Your task to perform on an android device: Show me recent news Image 0: 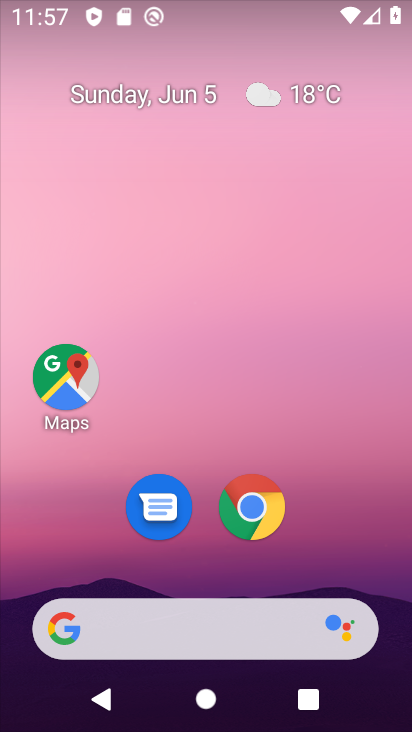
Step 0: drag from (216, 562) to (218, 6)
Your task to perform on an android device: Show me recent news Image 1: 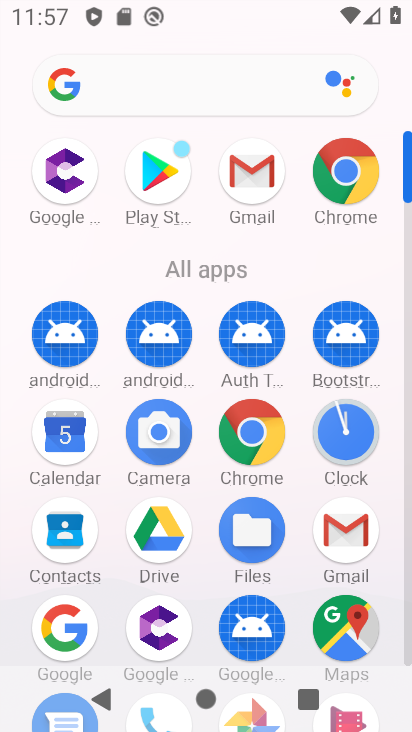
Step 1: click (188, 123)
Your task to perform on an android device: Show me recent news Image 2: 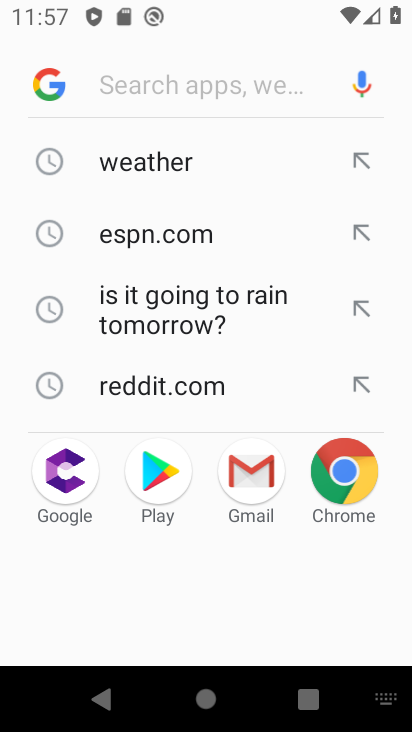
Step 2: type "recent news"
Your task to perform on an android device: Show me recent news Image 3: 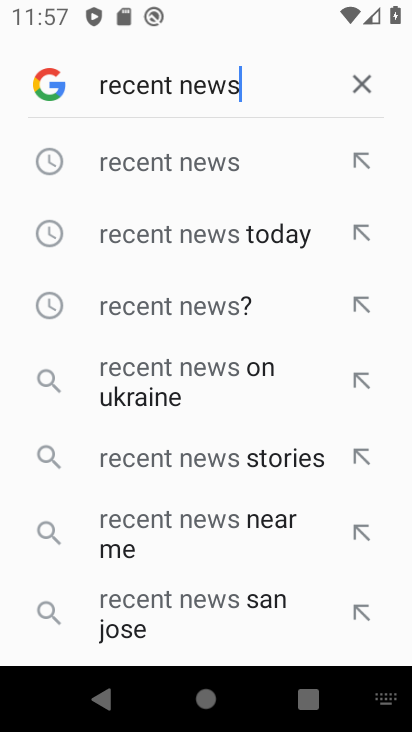
Step 3: click (159, 80)
Your task to perform on an android device: Show me recent news Image 4: 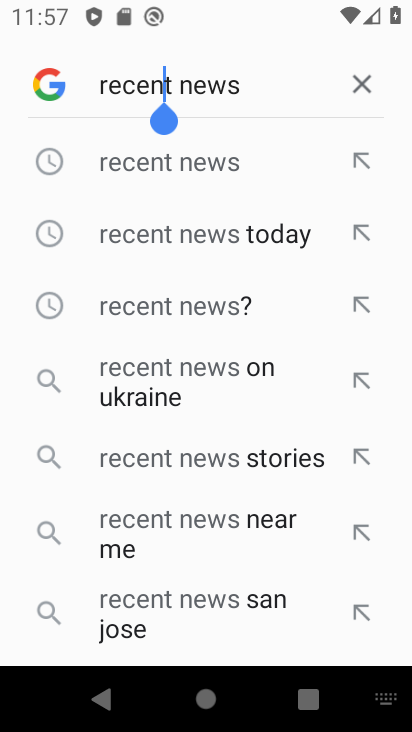
Step 4: click (200, 174)
Your task to perform on an android device: Show me recent news Image 5: 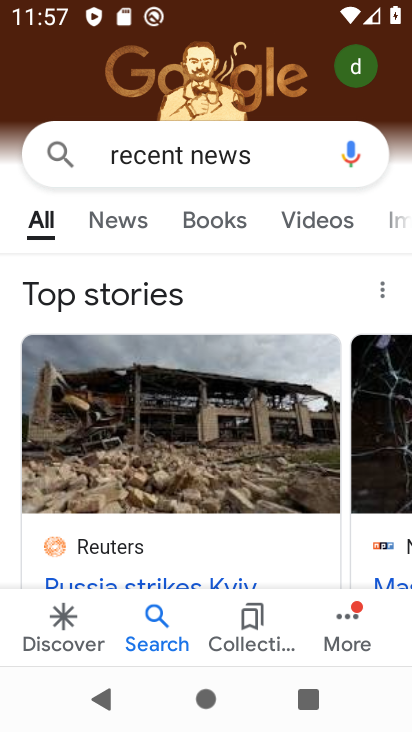
Step 5: task complete